Your task to perform on an android device: turn off priority inbox in the gmail app Image 0: 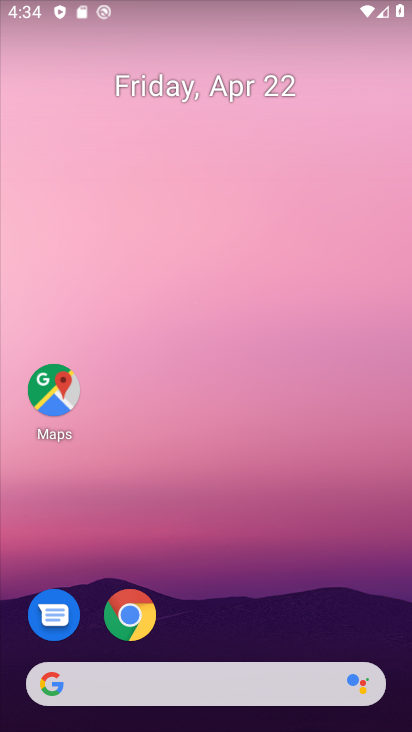
Step 0: drag from (221, 561) to (178, 60)
Your task to perform on an android device: turn off priority inbox in the gmail app Image 1: 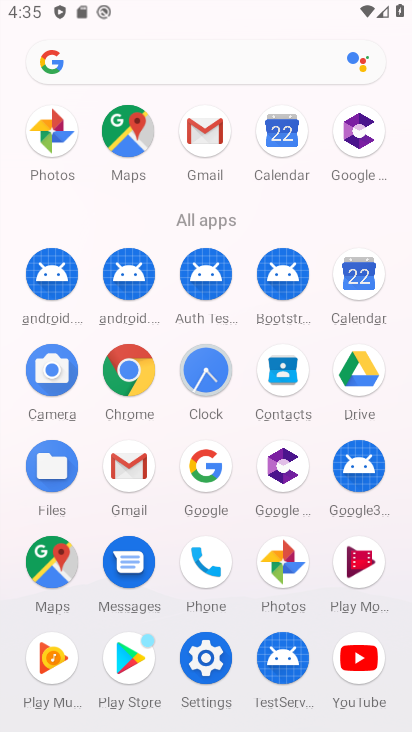
Step 1: drag from (6, 528) to (5, 358)
Your task to perform on an android device: turn off priority inbox in the gmail app Image 2: 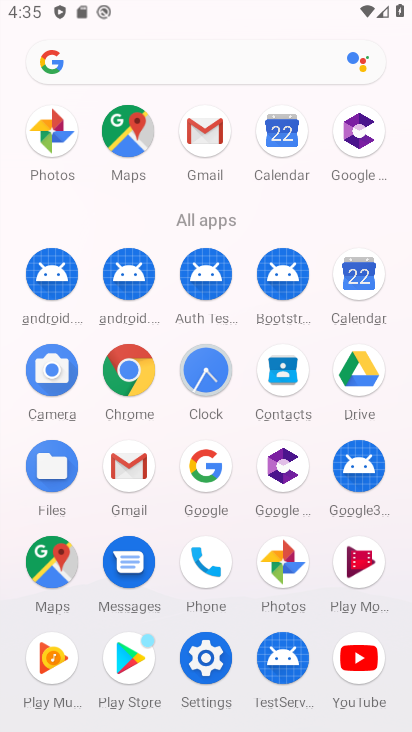
Step 2: click (128, 463)
Your task to perform on an android device: turn off priority inbox in the gmail app Image 3: 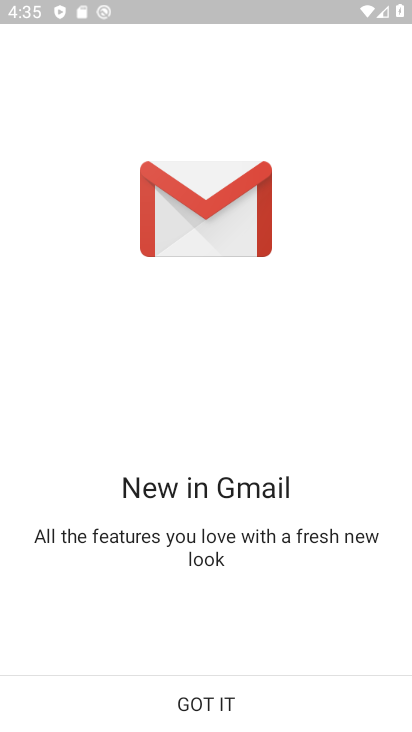
Step 3: click (204, 692)
Your task to perform on an android device: turn off priority inbox in the gmail app Image 4: 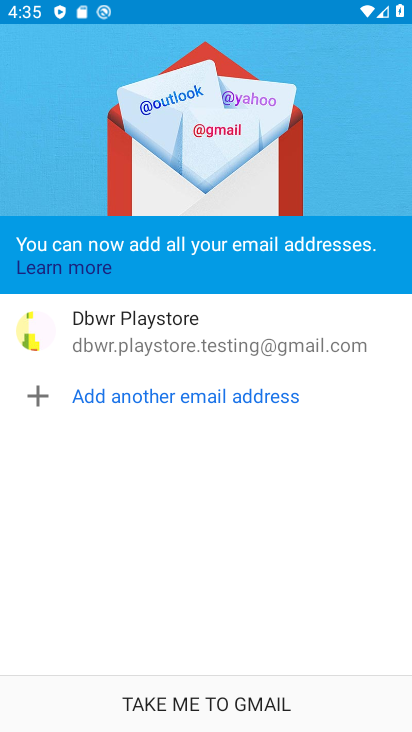
Step 4: click (204, 692)
Your task to perform on an android device: turn off priority inbox in the gmail app Image 5: 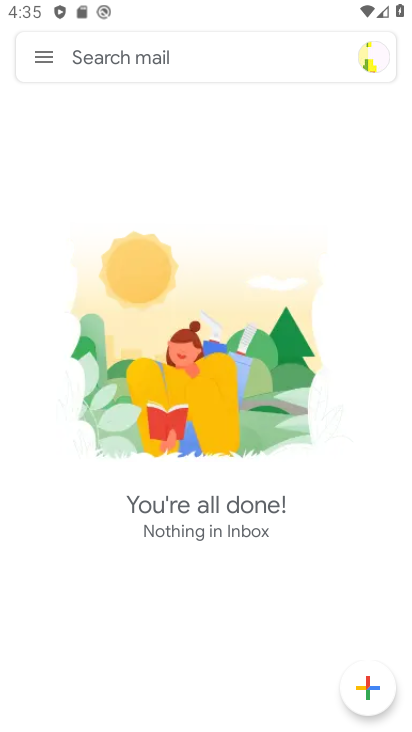
Step 5: click (62, 58)
Your task to perform on an android device: turn off priority inbox in the gmail app Image 6: 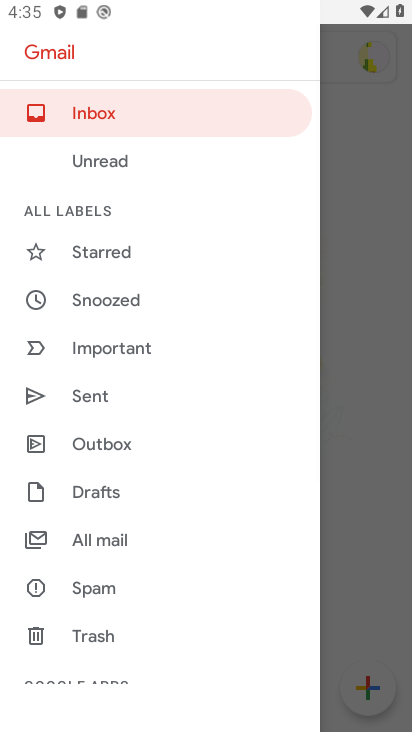
Step 6: drag from (177, 505) to (177, 122)
Your task to perform on an android device: turn off priority inbox in the gmail app Image 7: 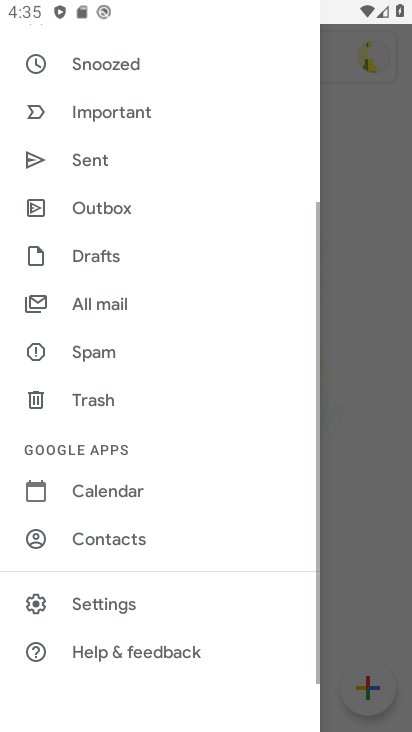
Step 7: drag from (170, 547) to (184, 150)
Your task to perform on an android device: turn off priority inbox in the gmail app Image 8: 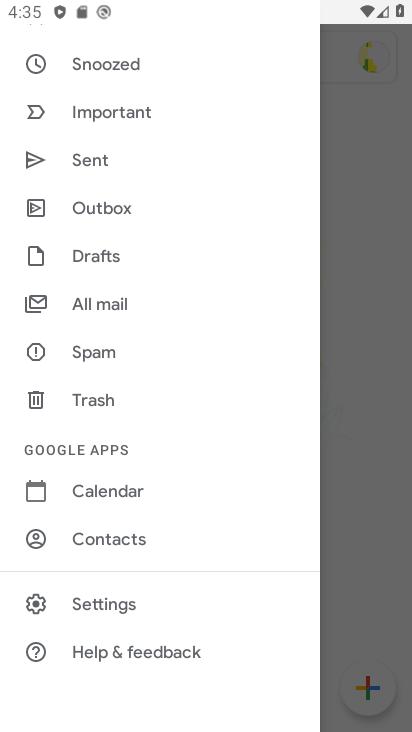
Step 8: click (129, 602)
Your task to perform on an android device: turn off priority inbox in the gmail app Image 9: 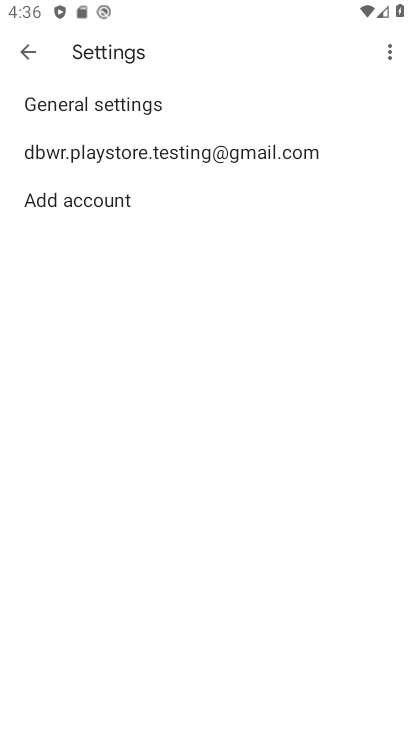
Step 9: click (96, 152)
Your task to perform on an android device: turn off priority inbox in the gmail app Image 10: 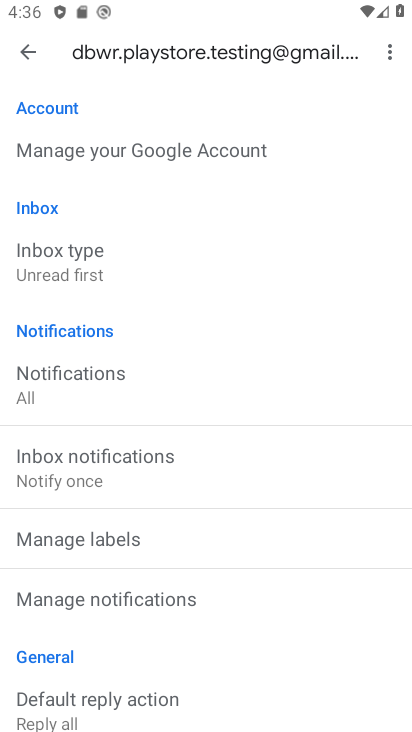
Step 10: task complete